Your task to perform on an android device: find photos in the google photos app Image 0: 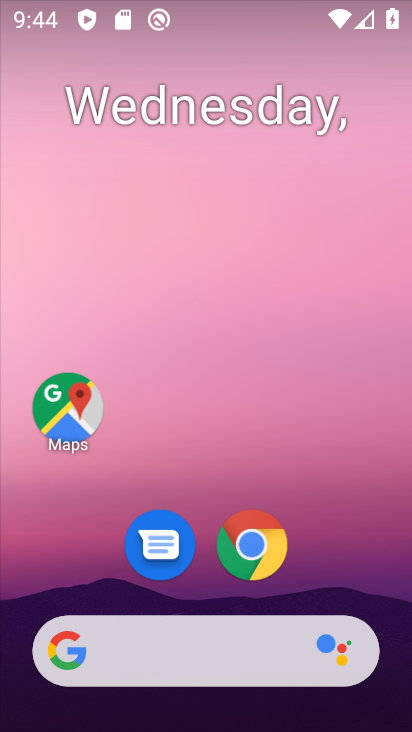
Step 0: drag from (373, 548) to (289, 0)
Your task to perform on an android device: find photos in the google photos app Image 1: 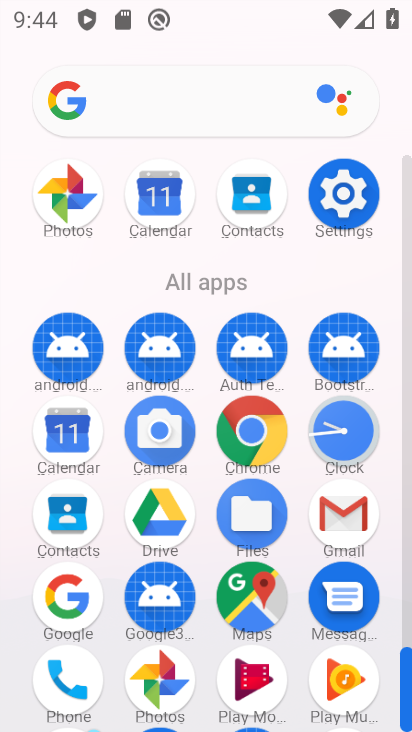
Step 1: click (69, 210)
Your task to perform on an android device: find photos in the google photos app Image 2: 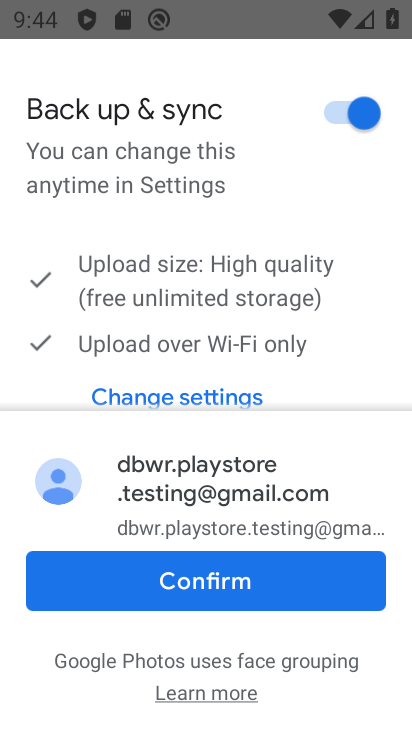
Step 2: click (156, 587)
Your task to perform on an android device: find photos in the google photos app Image 3: 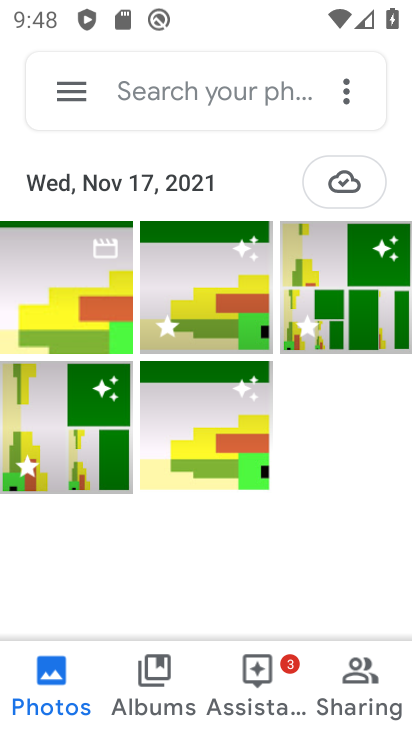
Step 3: click (88, 312)
Your task to perform on an android device: find photos in the google photos app Image 4: 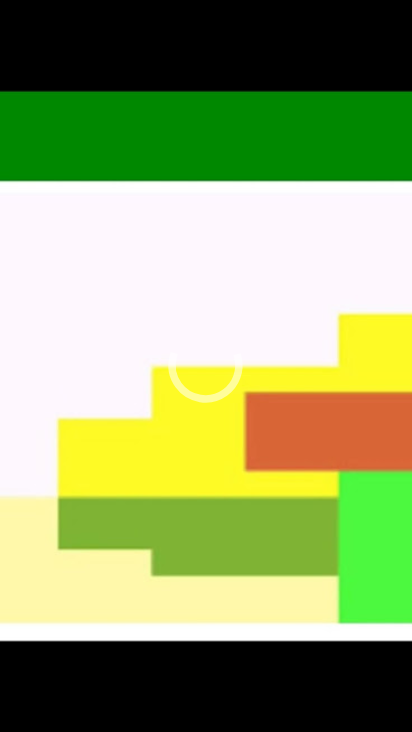
Step 4: task complete